Your task to perform on an android device: Show me recent news Image 0: 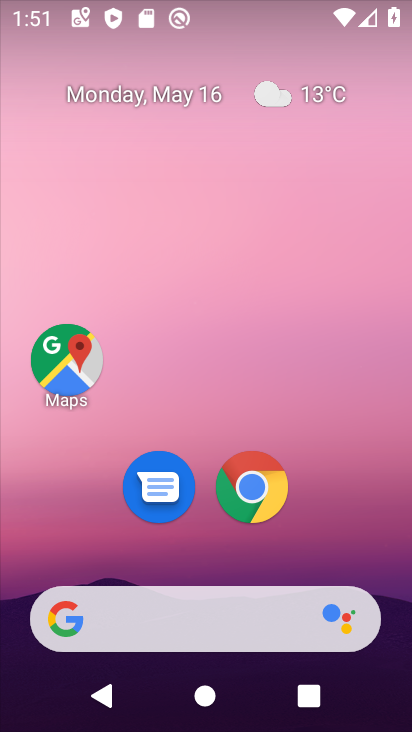
Step 0: click (267, 19)
Your task to perform on an android device: Show me recent news Image 1: 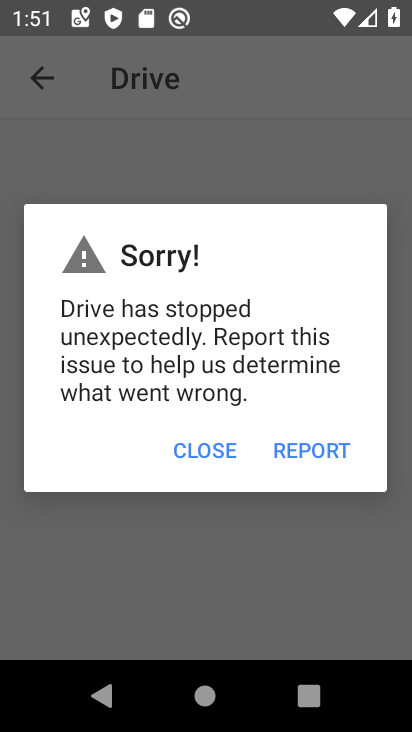
Step 1: press home button
Your task to perform on an android device: Show me recent news Image 2: 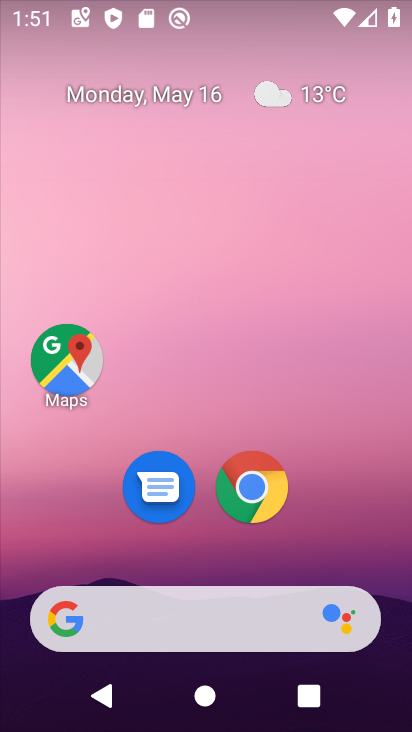
Step 2: click (250, 484)
Your task to perform on an android device: Show me recent news Image 3: 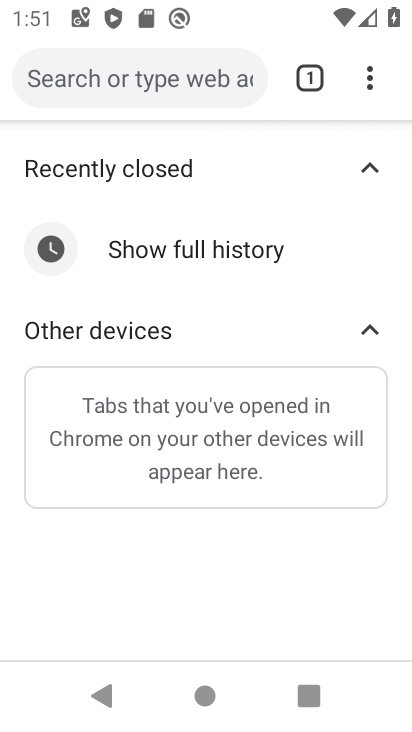
Step 3: click (166, 80)
Your task to perform on an android device: Show me recent news Image 4: 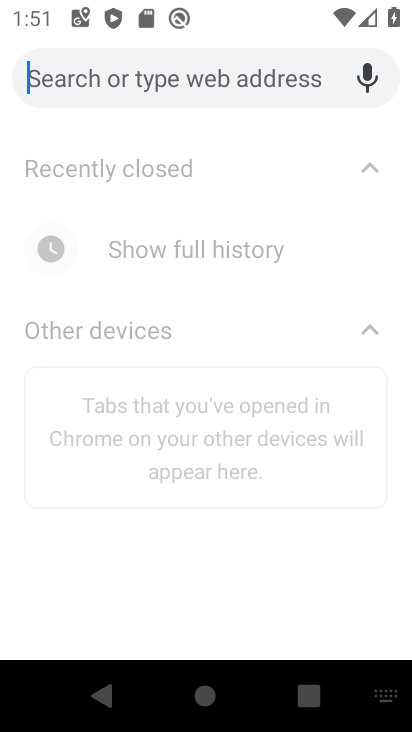
Step 4: type "Show me recent news"
Your task to perform on an android device: Show me recent news Image 5: 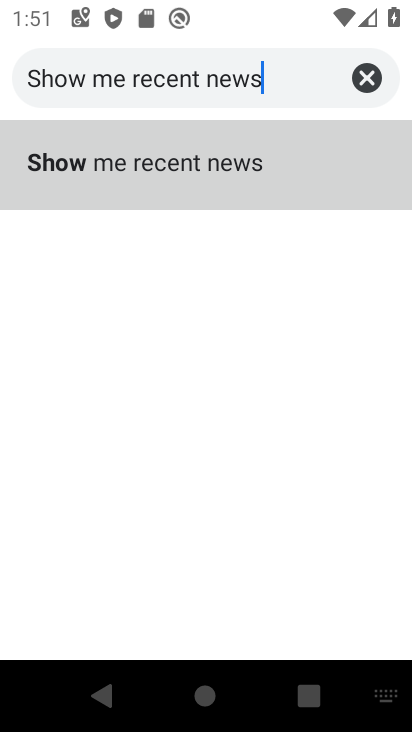
Step 5: type ""
Your task to perform on an android device: Show me recent news Image 6: 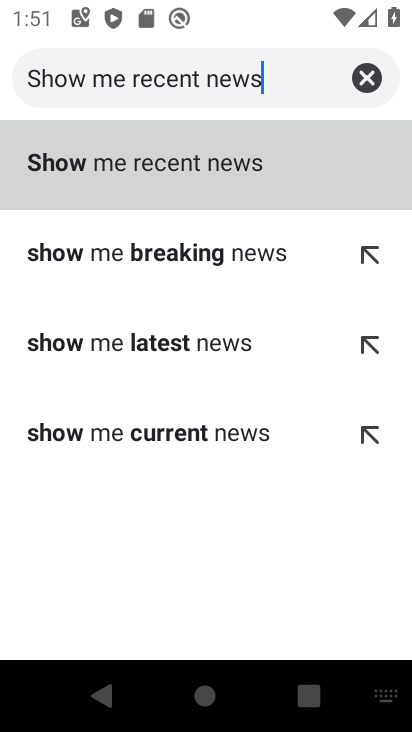
Step 6: click (188, 142)
Your task to perform on an android device: Show me recent news Image 7: 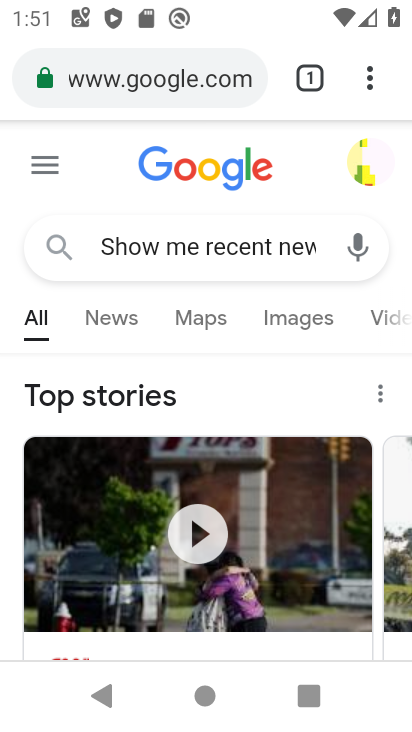
Step 7: task complete